Your task to perform on an android device: add a label to a message in the gmail app Image 0: 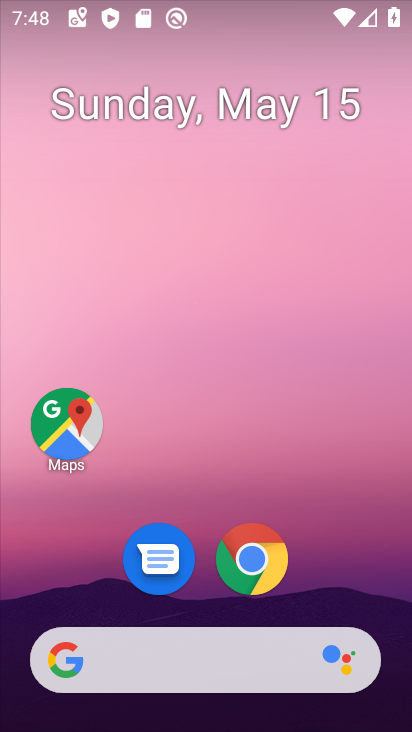
Step 0: click (253, 564)
Your task to perform on an android device: add a label to a message in the gmail app Image 1: 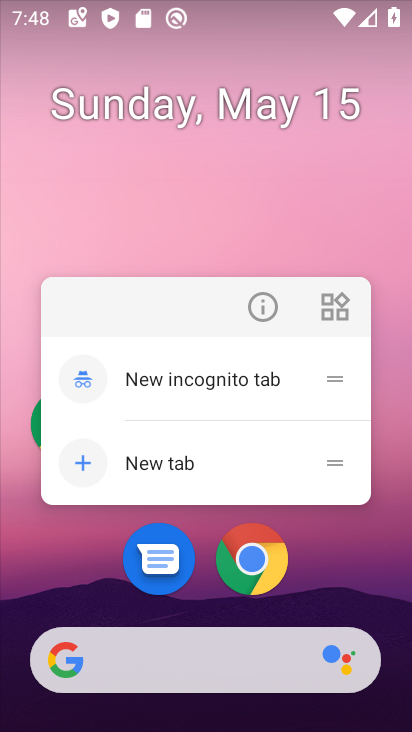
Step 1: click (278, 198)
Your task to perform on an android device: add a label to a message in the gmail app Image 2: 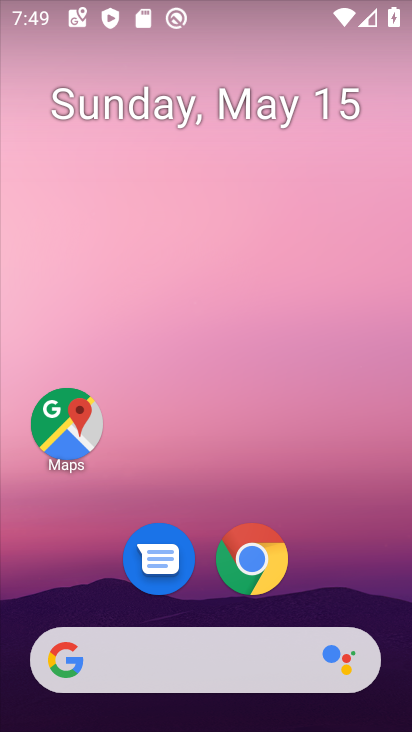
Step 2: drag from (353, 585) to (349, 16)
Your task to perform on an android device: add a label to a message in the gmail app Image 3: 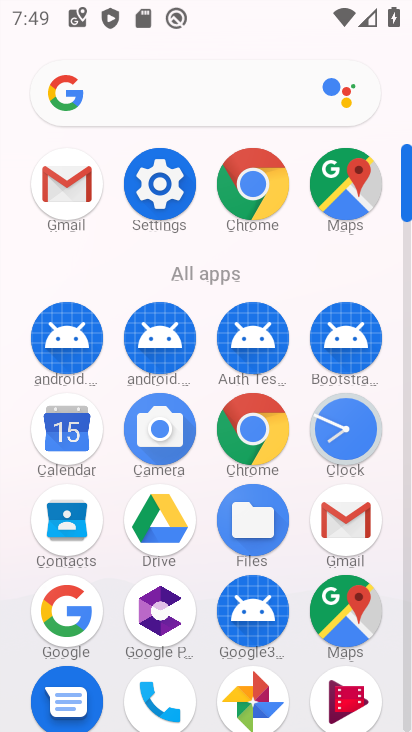
Step 3: click (92, 206)
Your task to perform on an android device: add a label to a message in the gmail app Image 4: 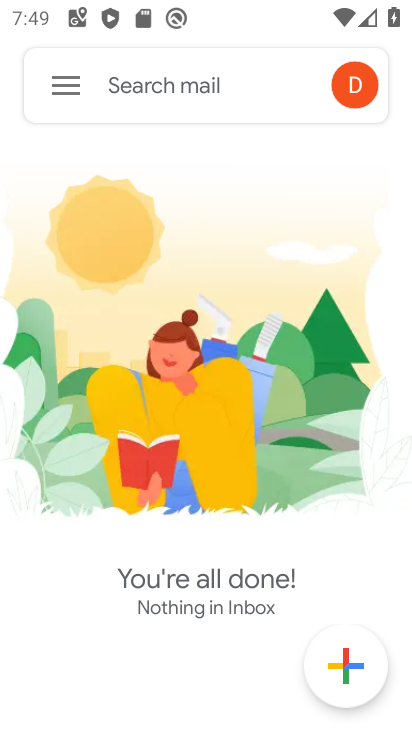
Step 4: click (73, 80)
Your task to perform on an android device: add a label to a message in the gmail app Image 5: 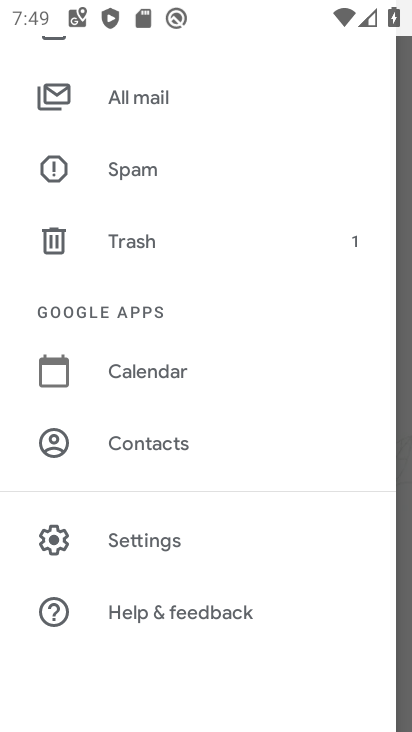
Step 5: drag from (168, 313) to (168, 702)
Your task to perform on an android device: add a label to a message in the gmail app Image 6: 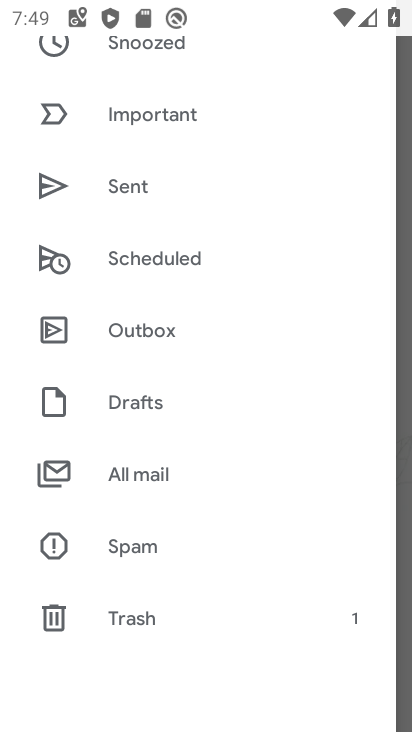
Step 6: click (154, 460)
Your task to perform on an android device: add a label to a message in the gmail app Image 7: 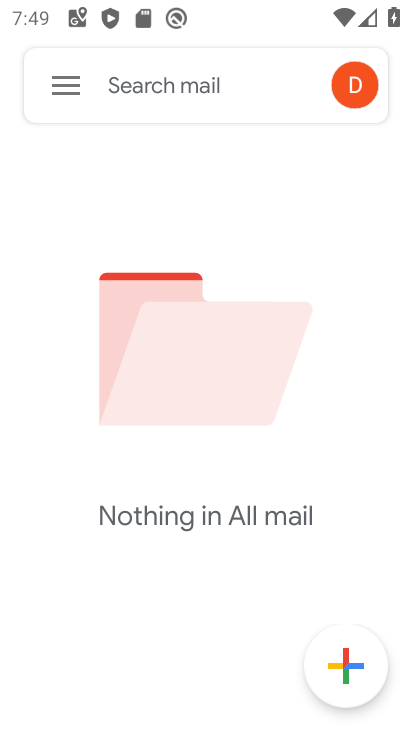
Step 7: click (254, 335)
Your task to perform on an android device: add a label to a message in the gmail app Image 8: 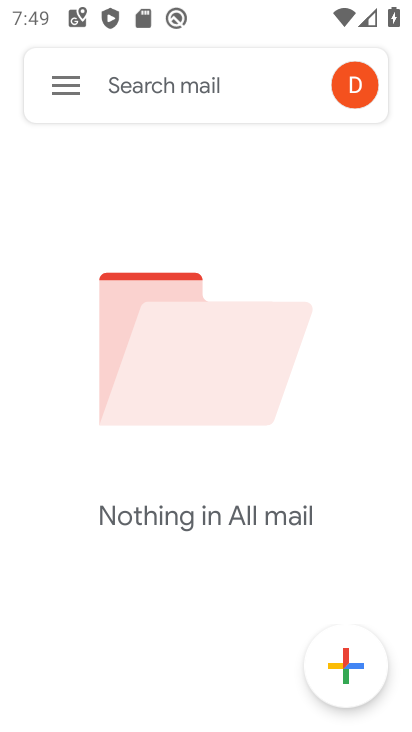
Step 8: click (69, 85)
Your task to perform on an android device: add a label to a message in the gmail app Image 9: 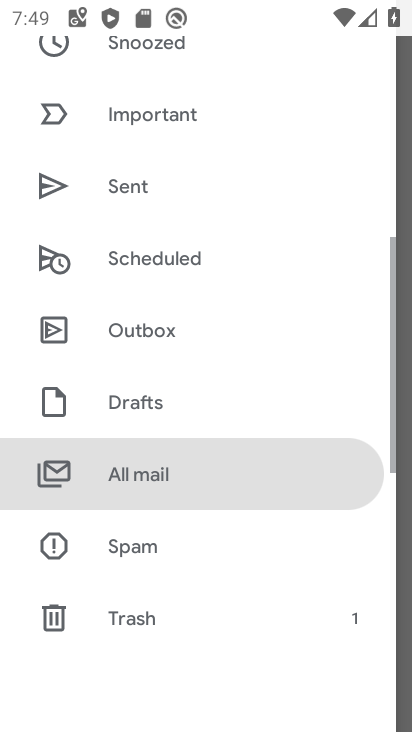
Step 9: drag from (105, 152) to (131, 572)
Your task to perform on an android device: add a label to a message in the gmail app Image 10: 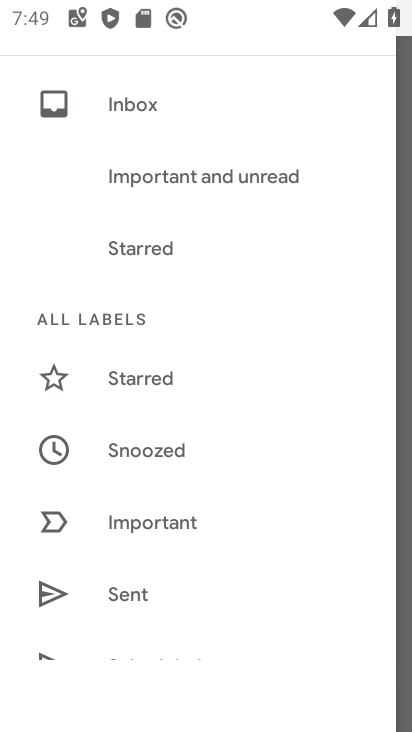
Step 10: click (162, 96)
Your task to perform on an android device: add a label to a message in the gmail app Image 11: 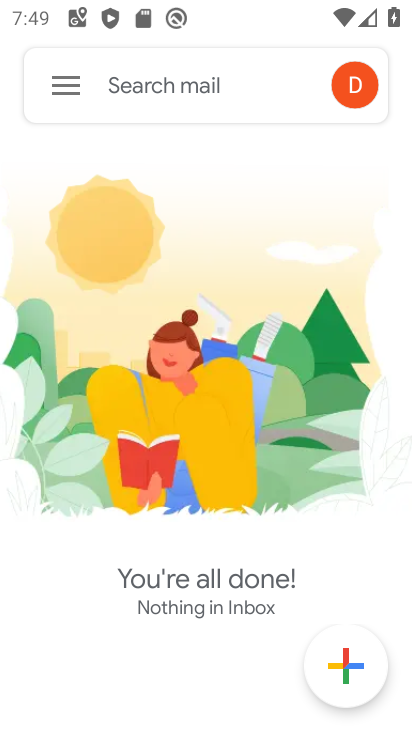
Step 11: click (37, 82)
Your task to perform on an android device: add a label to a message in the gmail app Image 12: 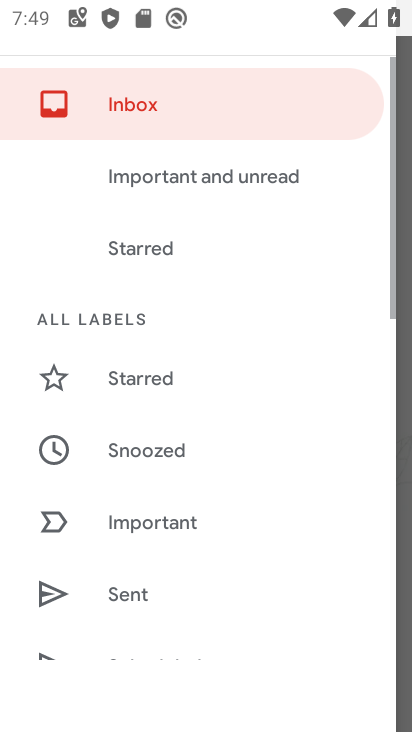
Step 12: task complete